Your task to perform on an android device: check out phone information Image 0: 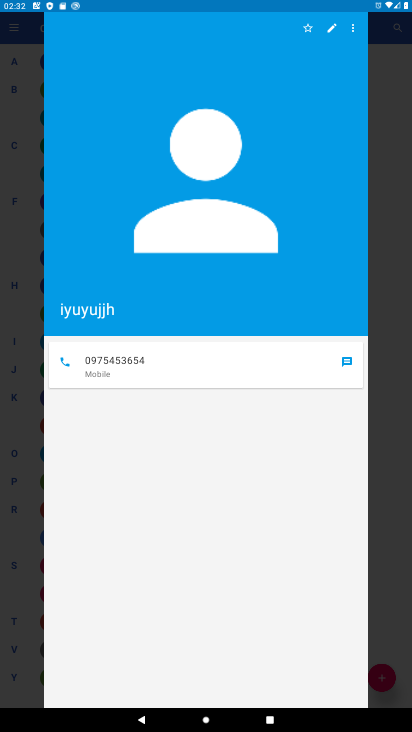
Step 0: press home button
Your task to perform on an android device: check out phone information Image 1: 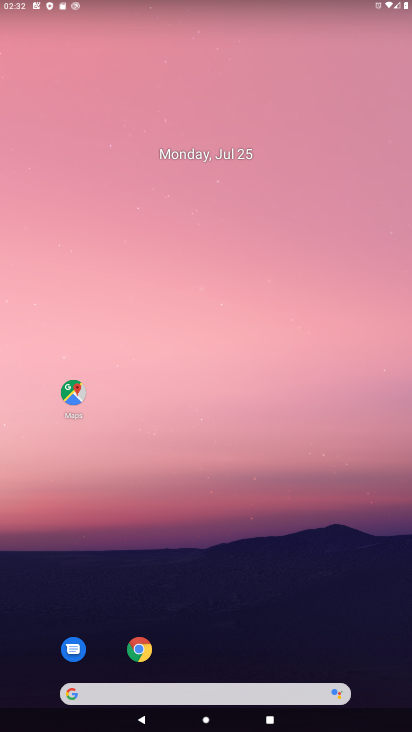
Step 1: drag from (378, 652) to (327, 160)
Your task to perform on an android device: check out phone information Image 2: 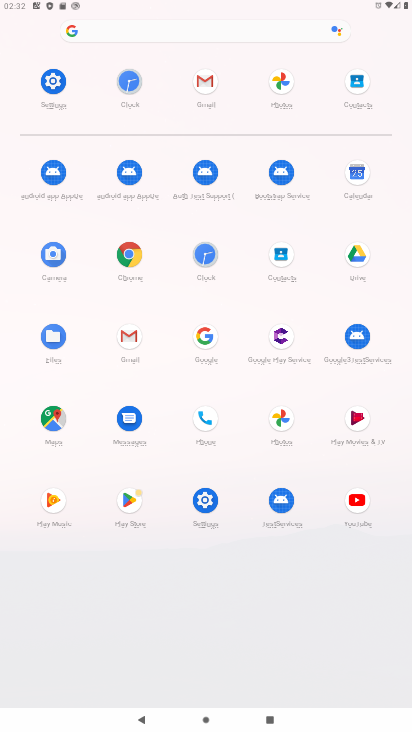
Step 2: click (206, 501)
Your task to perform on an android device: check out phone information Image 3: 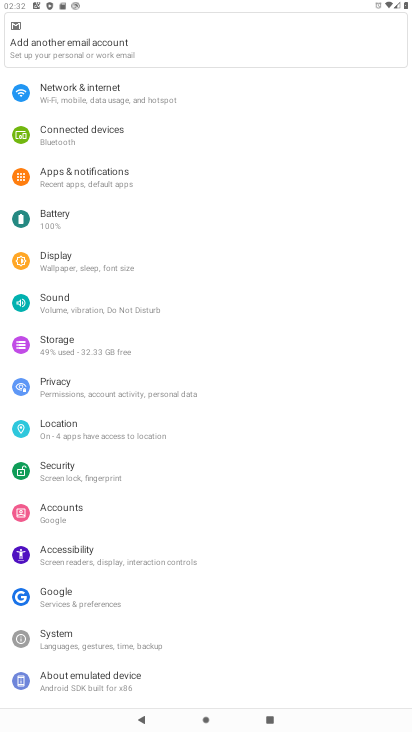
Step 3: click (83, 669)
Your task to perform on an android device: check out phone information Image 4: 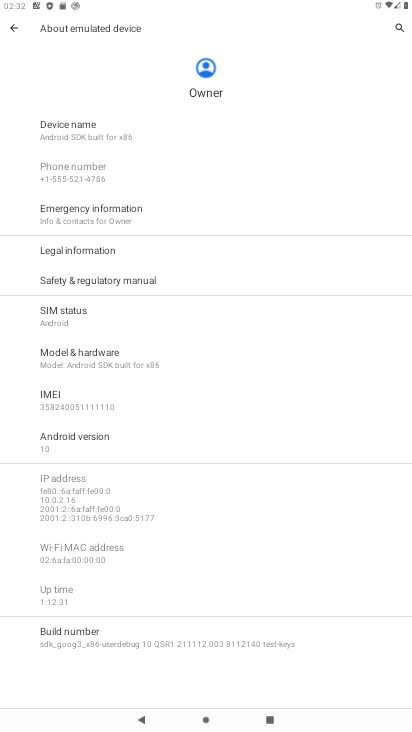
Step 4: task complete